Your task to perform on an android device: open device folders in google photos Image 0: 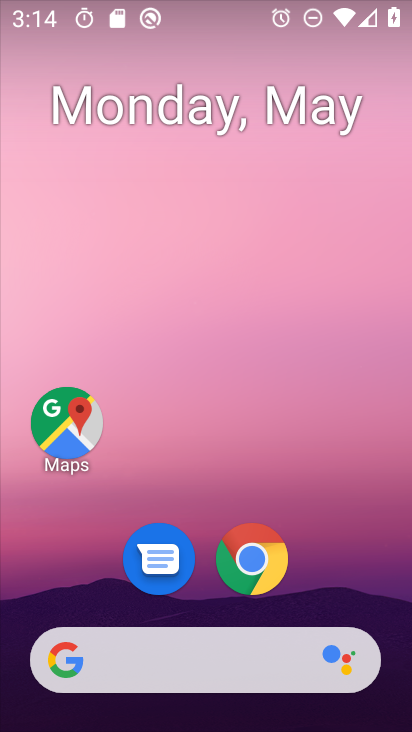
Step 0: drag from (216, 581) to (296, 116)
Your task to perform on an android device: open device folders in google photos Image 1: 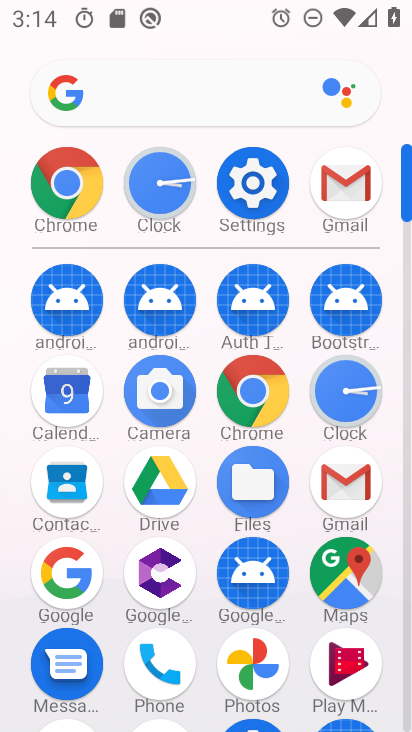
Step 1: drag from (208, 573) to (222, 316)
Your task to perform on an android device: open device folders in google photos Image 2: 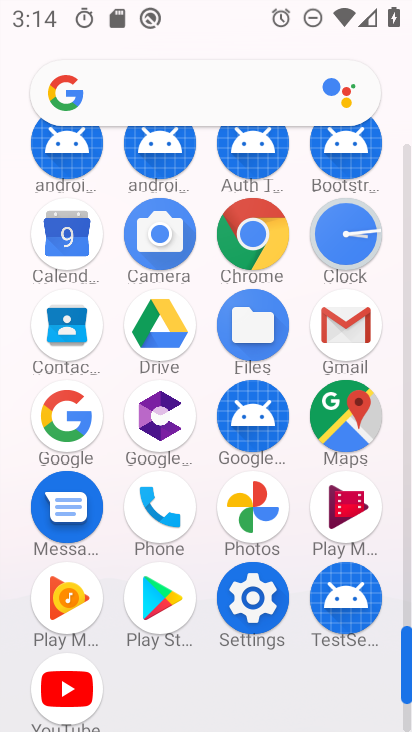
Step 2: click (252, 520)
Your task to perform on an android device: open device folders in google photos Image 3: 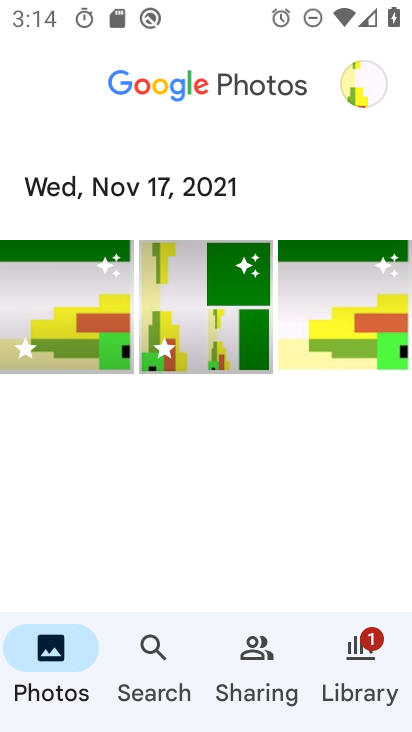
Step 3: click (349, 106)
Your task to perform on an android device: open device folders in google photos Image 4: 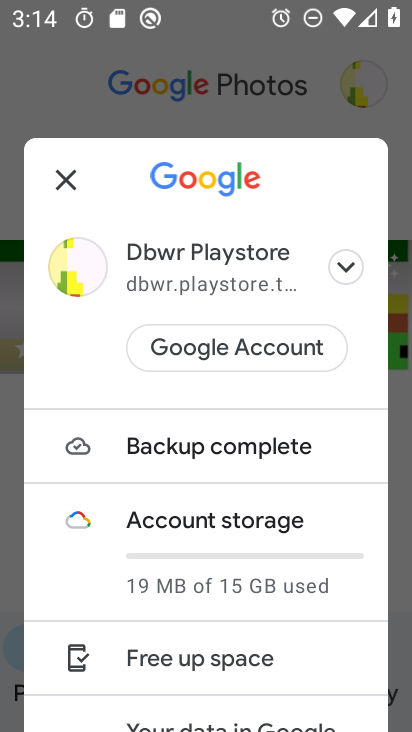
Step 4: drag from (170, 690) to (222, 213)
Your task to perform on an android device: open device folders in google photos Image 5: 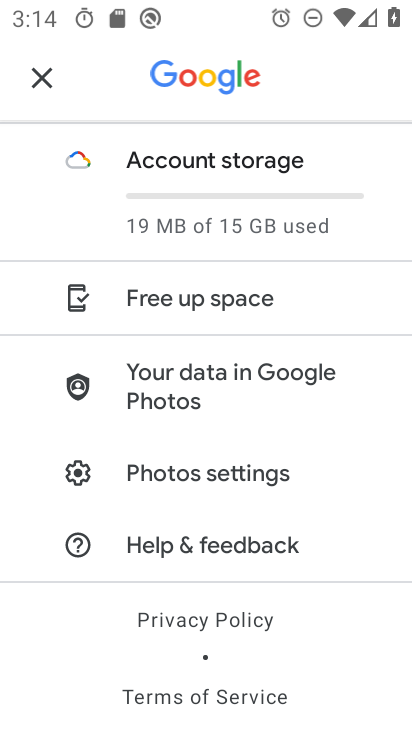
Step 5: click (216, 467)
Your task to perform on an android device: open device folders in google photos Image 6: 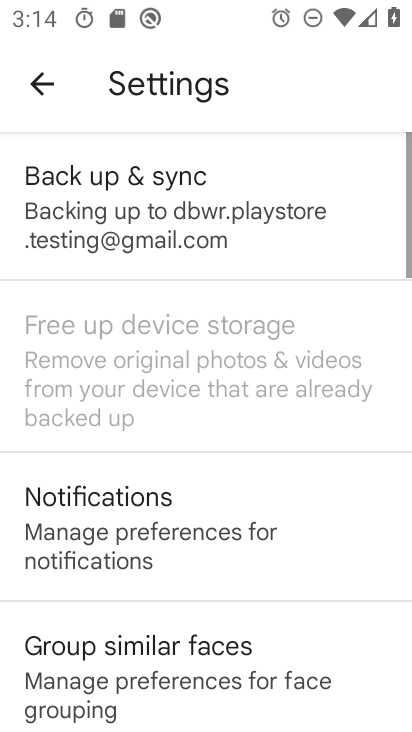
Step 6: drag from (230, 589) to (264, 240)
Your task to perform on an android device: open device folders in google photos Image 7: 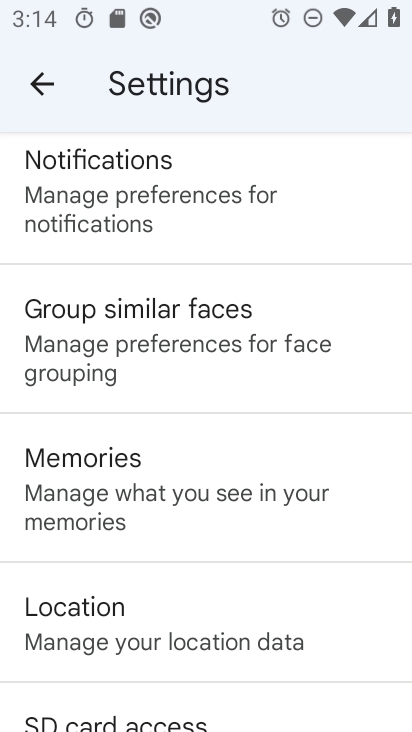
Step 7: drag from (189, 624) to (249, 263)
Your task to perform on an android device: open device folders in google photos Image 8: 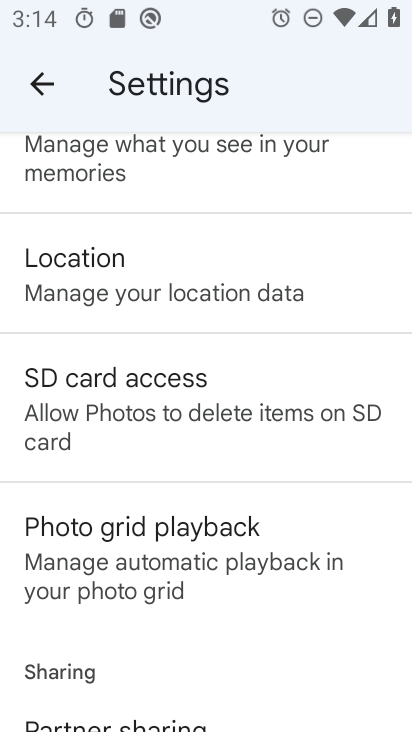
Step 8: click (33, 71)
Your task to perform on an android device: open device folders in google photos Image 9: 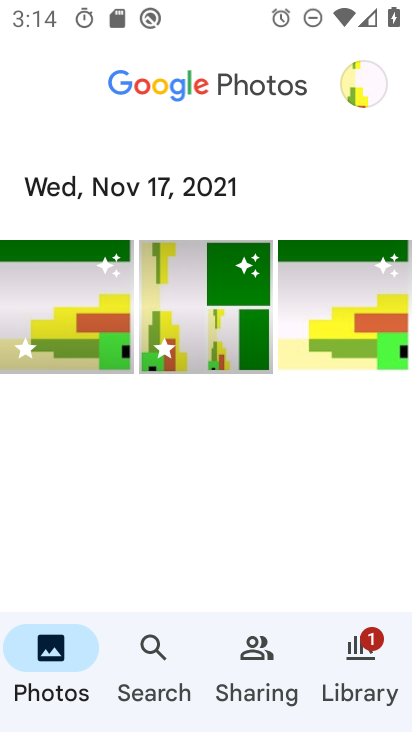
Step 9: click (344, 660)
Your task to perform on an android device: open device folders in google photos Image 10: 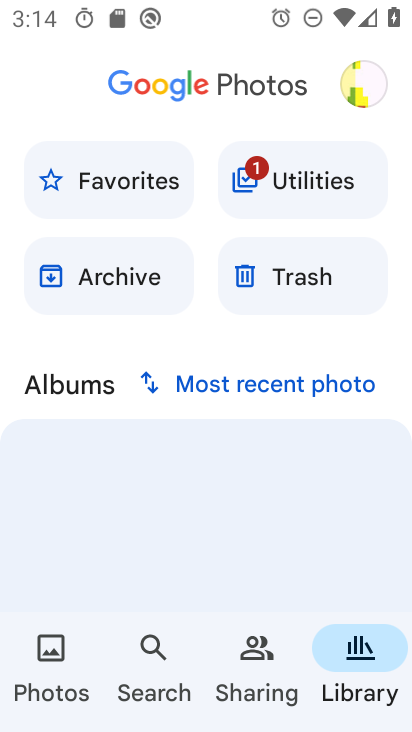
Step 10: click (163, 672)
Your task to perform on an android device: open device folders in google photos Image 11: 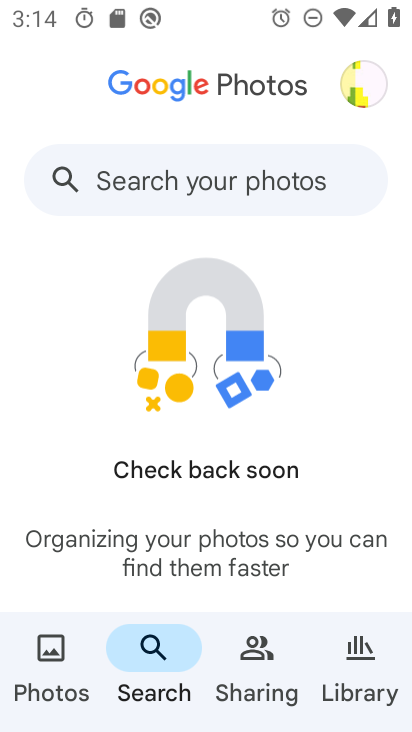
Step 11: click (255, 663)
Your task to perform on an android device: open device folders in google photos Image 12: 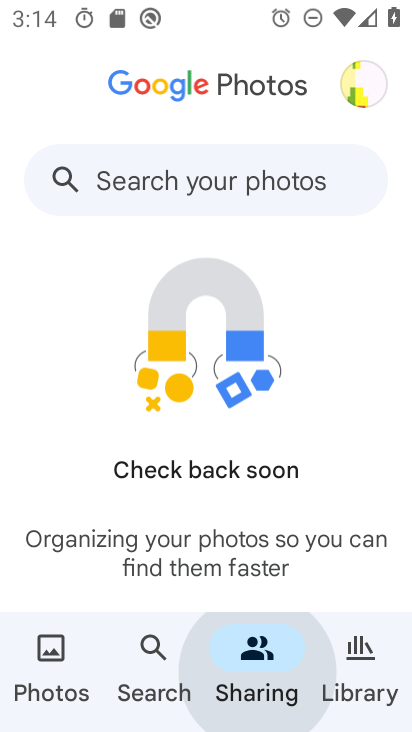
Step 12: click (378, 669)
Your task to perform on an android device: open device folders in google photos Image 13: 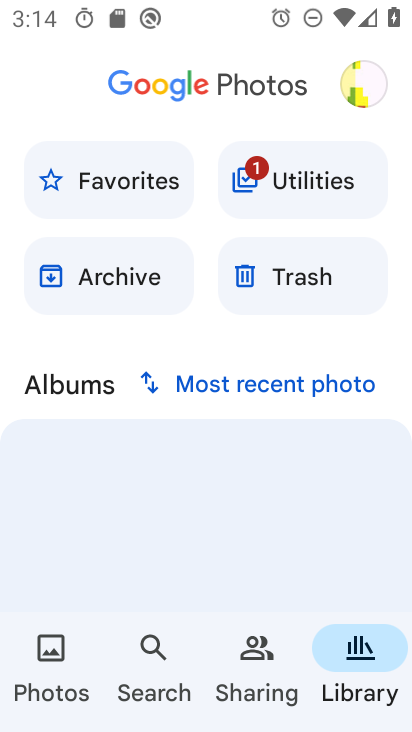
Step 13: task complete